Your task to perform on an android device: add a contact in the contacts app Image 0: 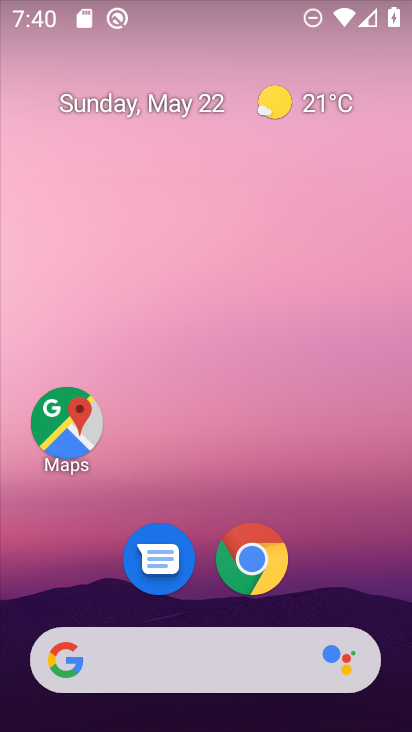
Step 0: press home button
Your task to perform on an android device: add a contact in the contacts app Image 1: 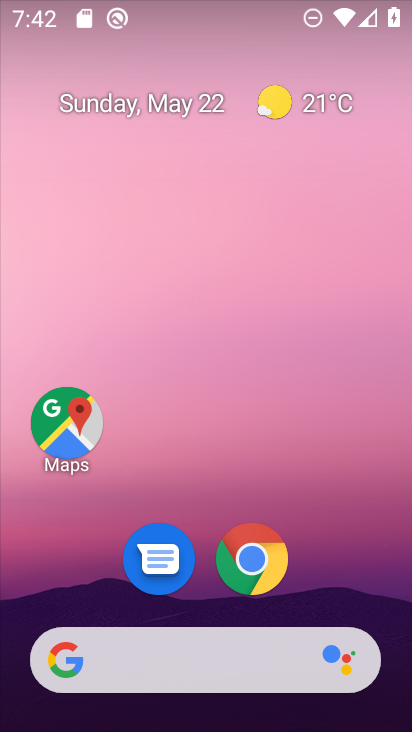
Step 1: drag from (263, 694) to (237, 76)
Your task to perform on an android device: add a contact in the contacts app Image 2: 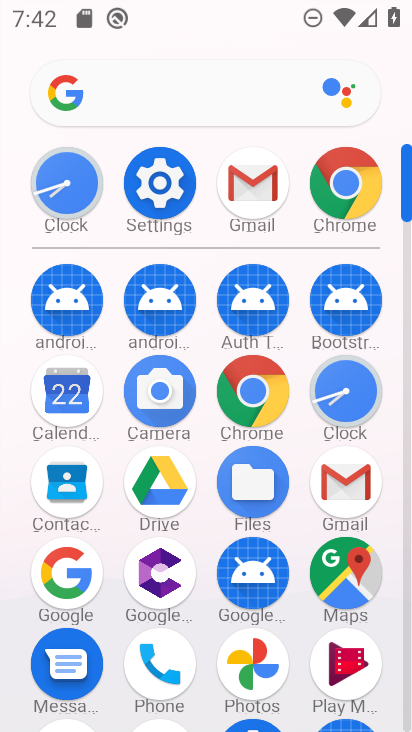
Step 2: click (169, 636)
Your task to perform on an android device: add a contact in the contacts app Image 3: 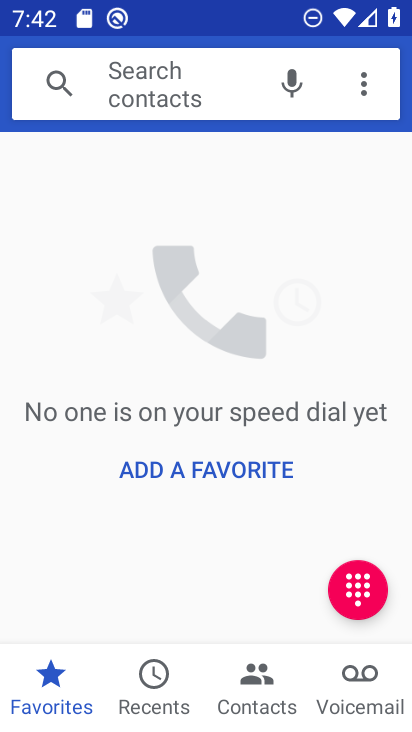
Step 3: click (270, 684)
Your task to perform on an android device: add a contact in the contacts app Image 4: 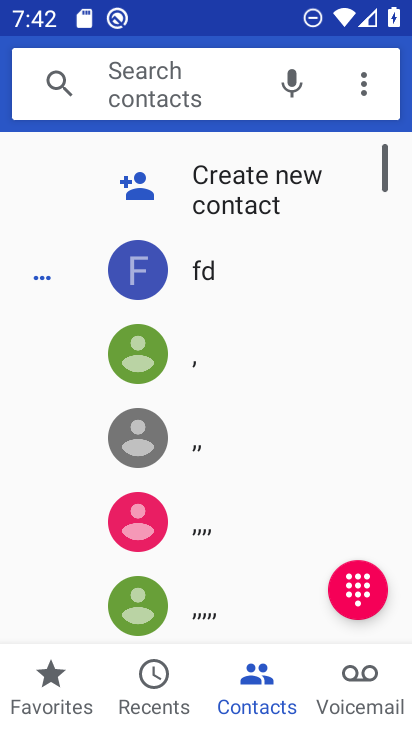
Step 4: click (229, 204)
Your task to perform on an android device: add a contact in the contacts app Image 5: 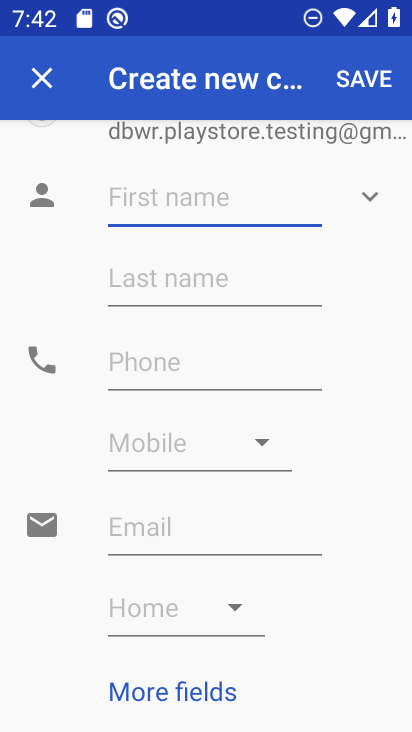
Step 5: click (154, 191)
Your task to perform on an android device: add a contact in the contacts app Image 6: 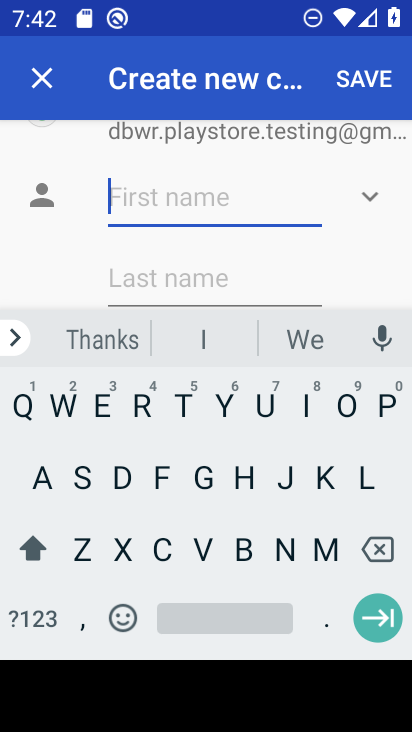
Step 6: click (218, 522)
Your task to perform on an android device: add a contact in the contacts app Image 7: 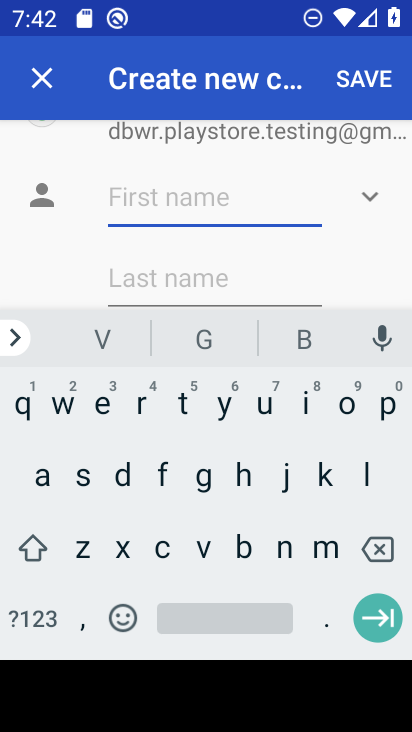
Step 7: click (70, 469)
Your task to perform on an android device: add a contact in the contacts app Image 8: 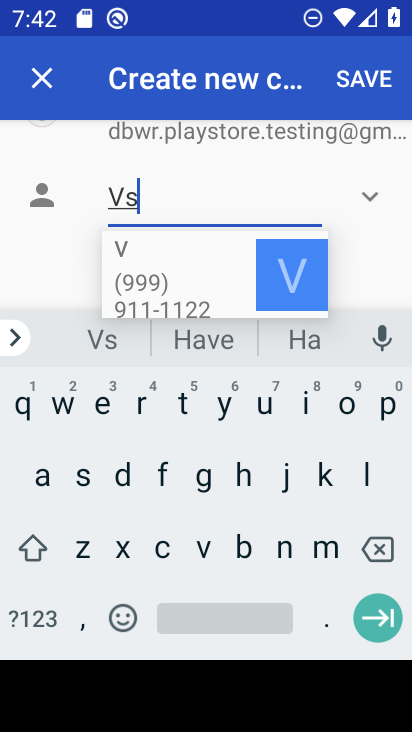
Step 8: click (179, 449)
Your task to perform on an android device: add a contact in the contacts app Image 9: 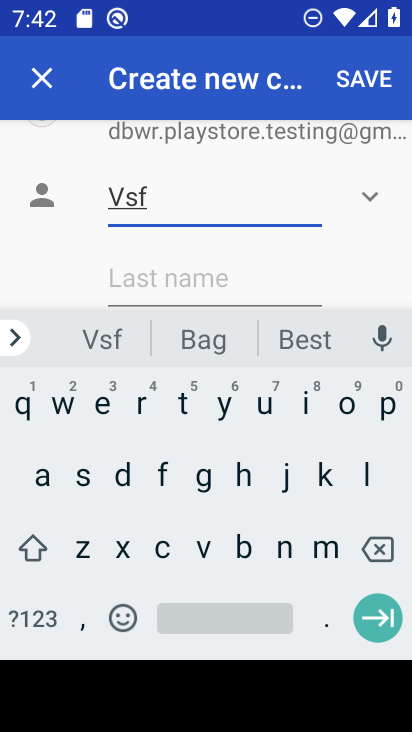
Step 9: drag from (71, 242) to (70, 132)
Your task to perform on an android device: add a contact in the contacts app Image 10: 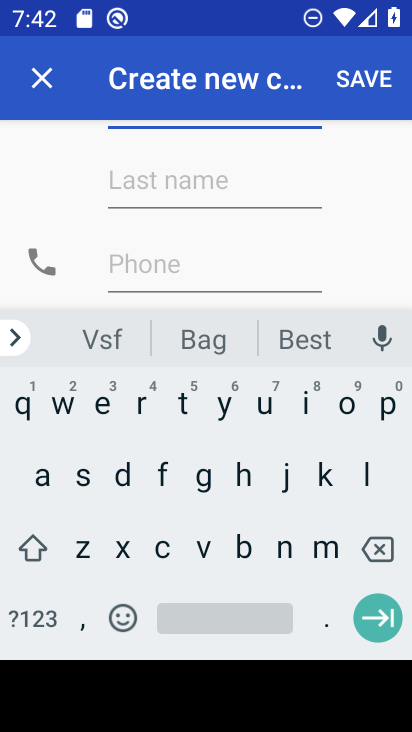
Step 10: click (177, 266)
Your task to perform on an android device: add a contact in the contacts app Image 11: 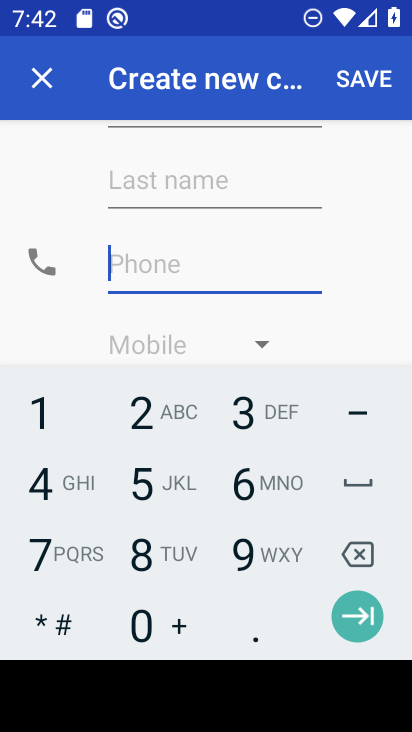
Step 11: click (215, 479)
Your task to perform on an android device: add a contact in the contacts app Image 12: 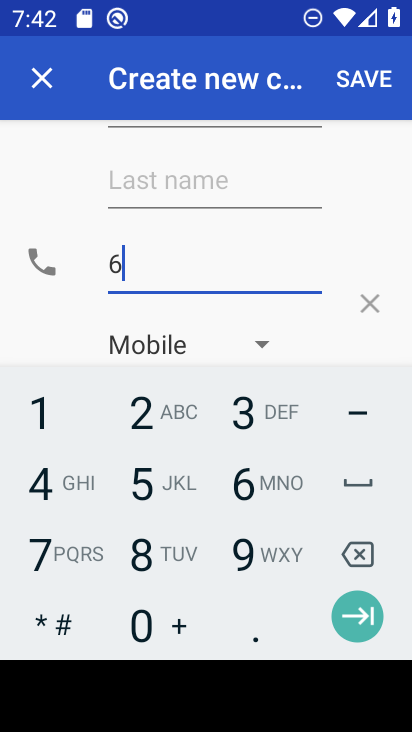
Step 12: click (233, 466)
Your task to perform on an android device: add a contact in the contacts app Image 13: 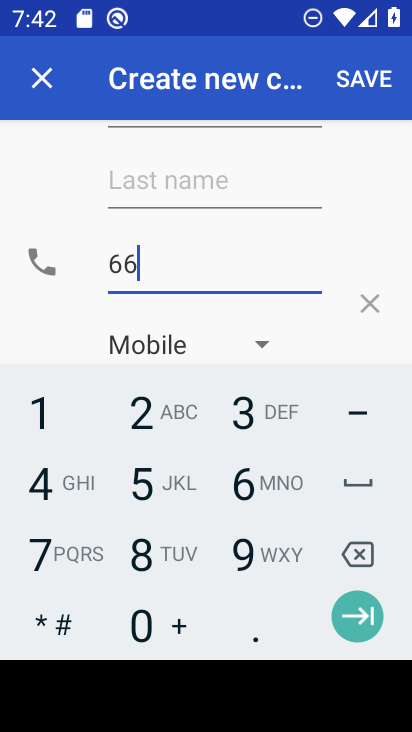
Step 13: click (103, 493)
Your task to perform on an android device: add a contact in the contacts app Image 14: 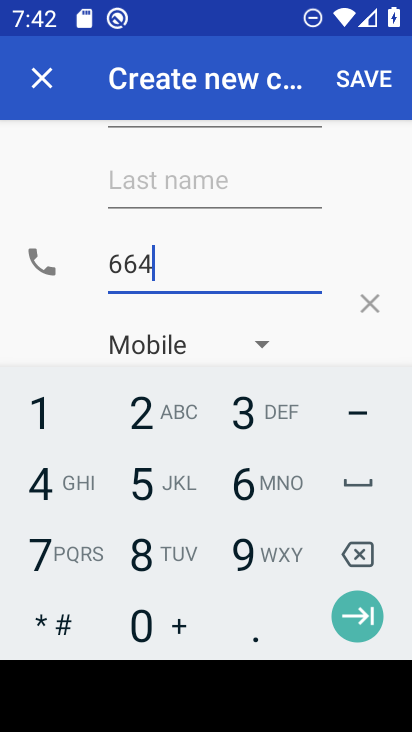
Step 14: click (207, 505)
Your task to perform on an android device: add a contact in the contacts app Image 15: 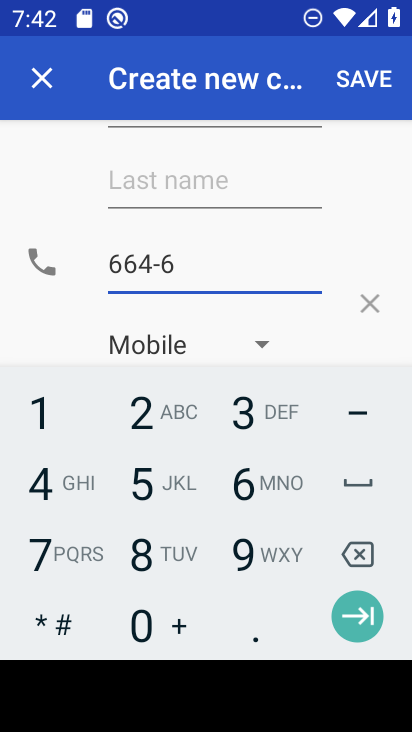
Step 15: click (352, 80)
Your task to perform on an android device: add a contact in the contacts app Image 16: 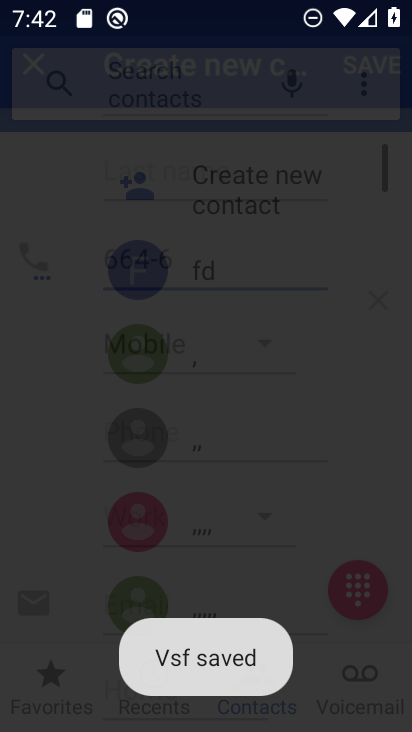
Step 16: task complete